Your task to perform on an android device: Open Youtube and go to "Your channel" Image 0: 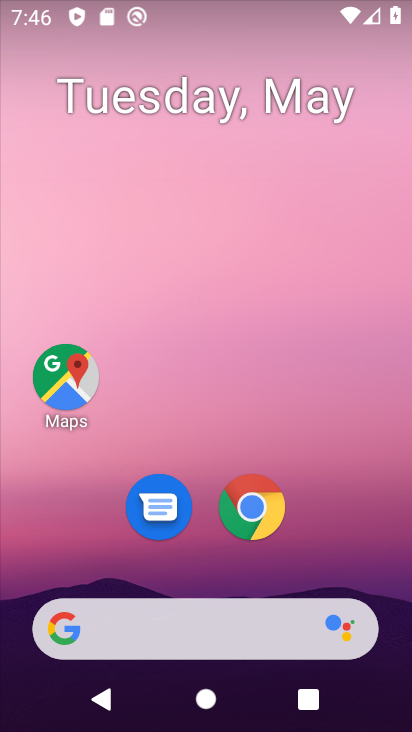
Step 0: drag from (333, 577) to (280, 25)
Your task to perform on an android device: Open Youtube and go to "Your channel" Image 1: 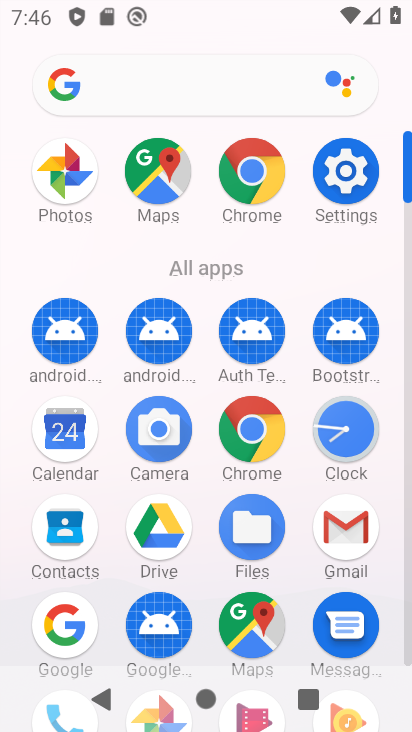
Step 1: drag from (11, 648) to (4, 336)
Your task to perform on an android device: Open Youtube and go to "Your channel" Image 2: 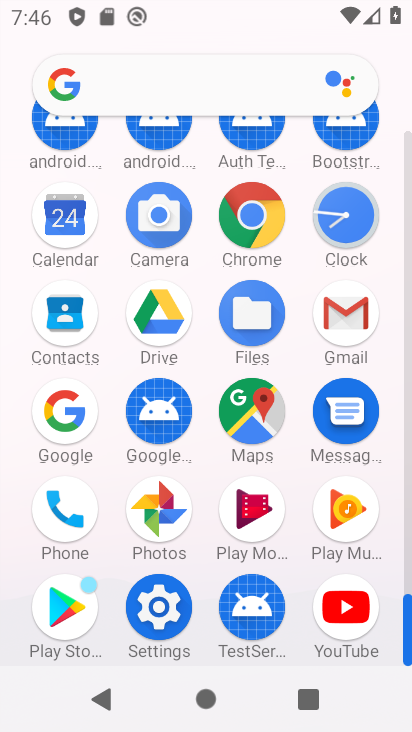
Step 2: click (346, 601)
Your task to perform on an android device: Open Youtube and go to "Your channel" Image 3: 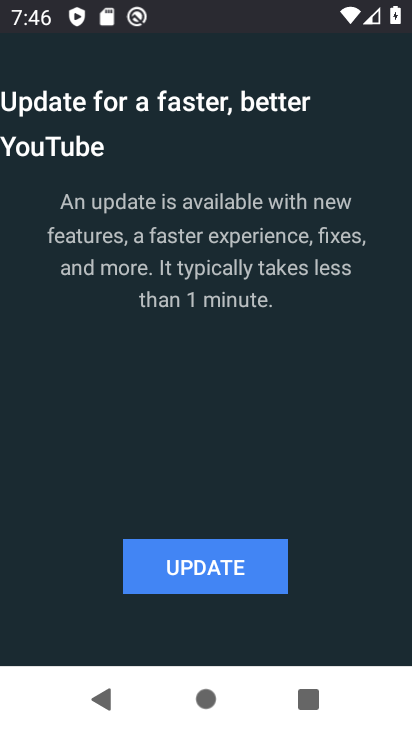
Step 3: click (235, 570)
Your task to perform on an android device: Open Youtube and go to "Your channel" Image 4: 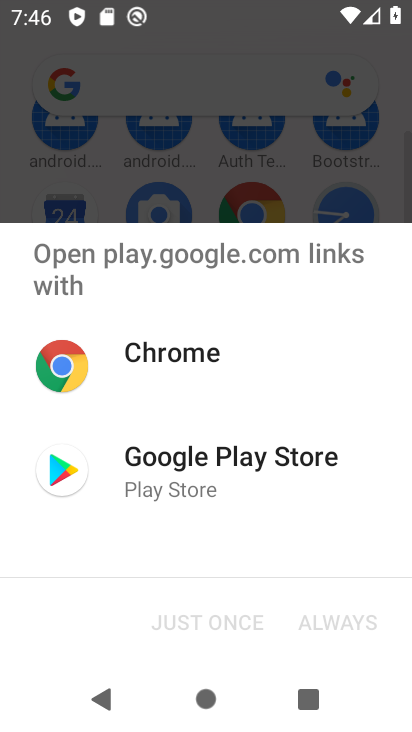
Step 4: click (161, 453)
Your task to perform on an android device: Open Youtube and go to "Your channel" Image 5: 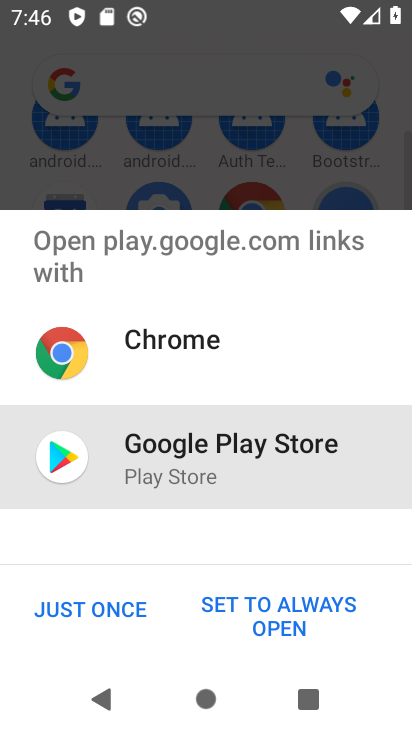
Step 5: click (72, 620)
Your task to perform on an android device: Open Youtube and go to "Your channel" Image 6: 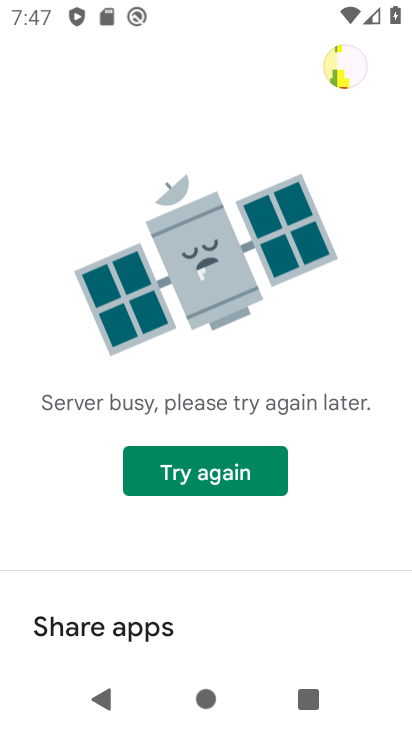
Step 6: task complete